Your task to perform on an android device: What's on my calendar today? Image 0: 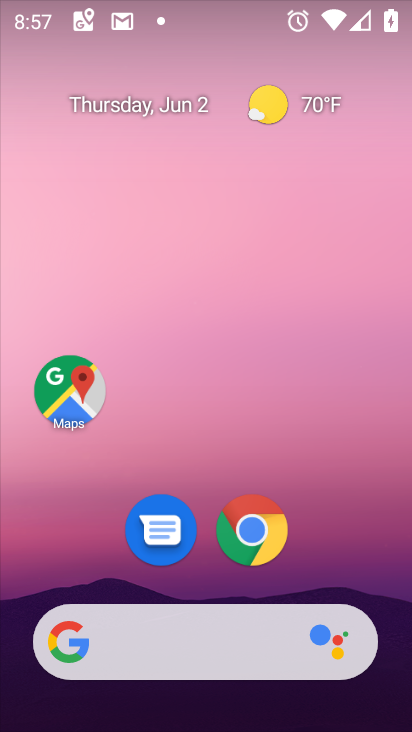
Step 0: drag from (187, 594) to (168, 236)
Your task to perform on an android device: What's on my calendar today? Image 1: 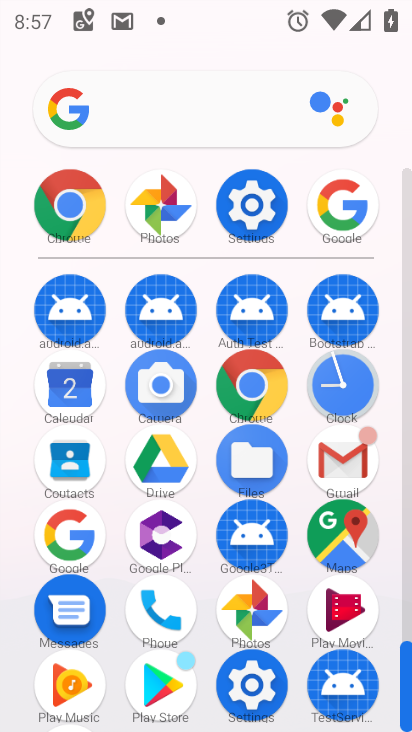
Step 1: click (71, 398)
Your task to perform on an android device: What's on my calendar today? Image 2: 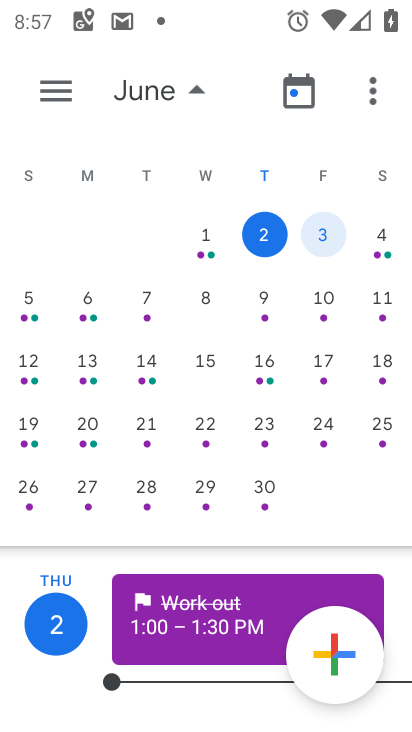
Step 2: click (267, 235)
Your task to perform on an android device: What's on my calendar today? Image 3: 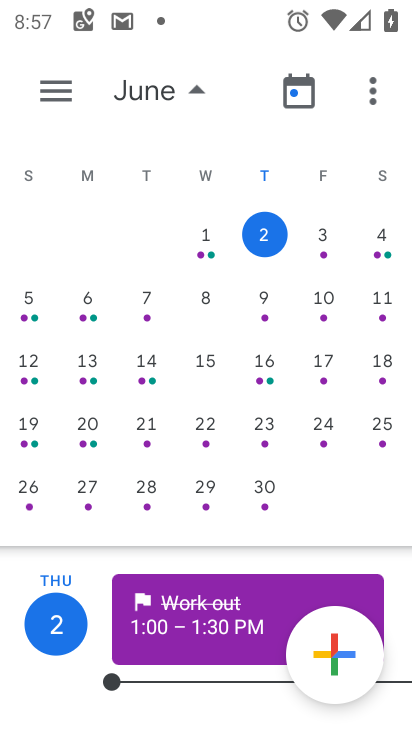
Step 3: drag from (213, 642) to (170, 377)
Your task to perform on an android device: What's on my calendar today? Image 4: 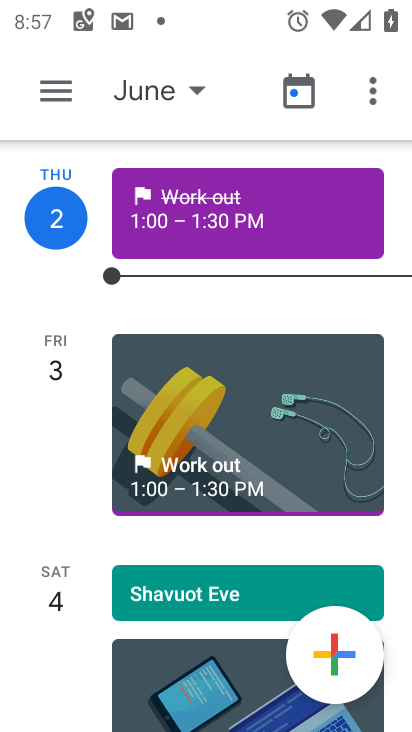
Step 4: click (170, 223)
Your task to perform on an android device: What's on my calendar today? Image 5: 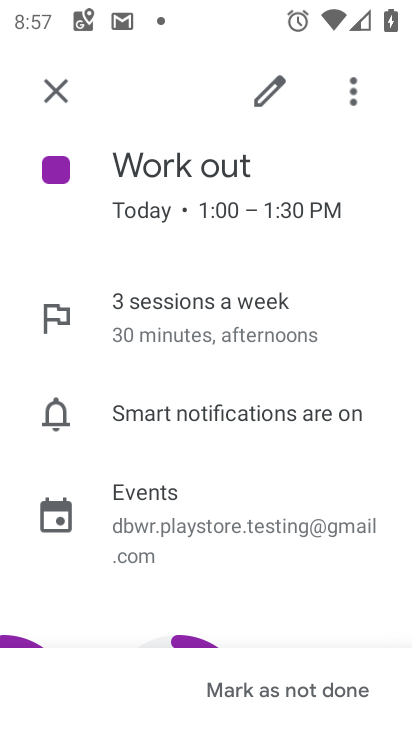
Step 5: task complete